Your task to perform on an android device: Open the map Image 0: 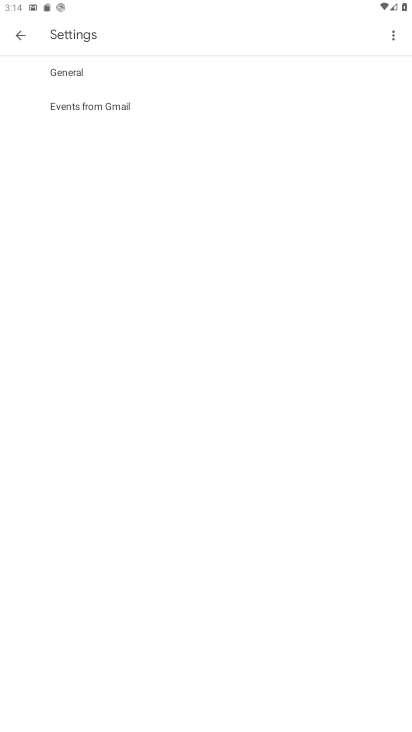
Step 0: press home button
Your task to perform on an android device: Open the map Image 1: 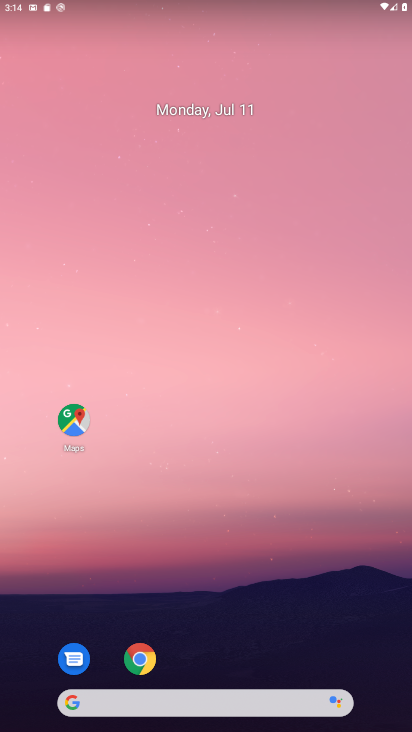
Step 1: drag from (225, 666) to (347, 223)
Your task to perform on an android device: Open the map Image 2: 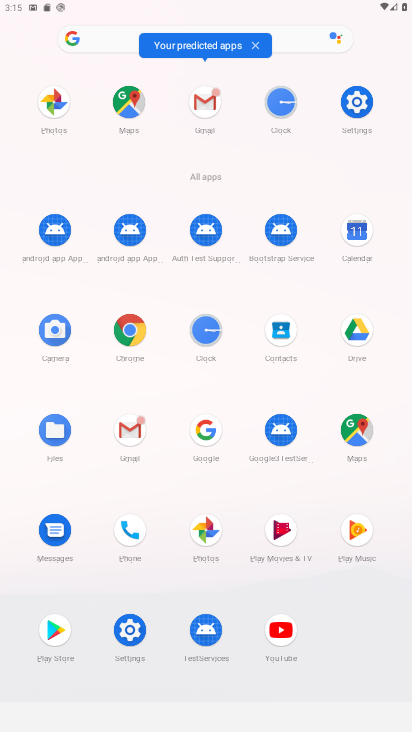
Step 2: click (363, 423)
Your task to perform on an android device: Open the map Image 3: 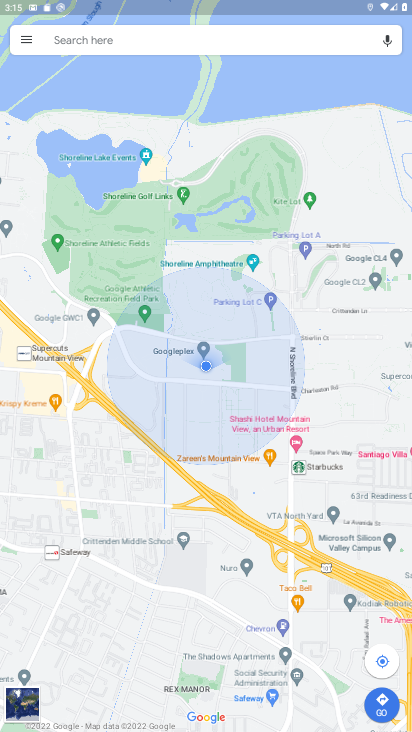
Step 3: task complete